Your task to perform on an android device: add a contact Image 0: 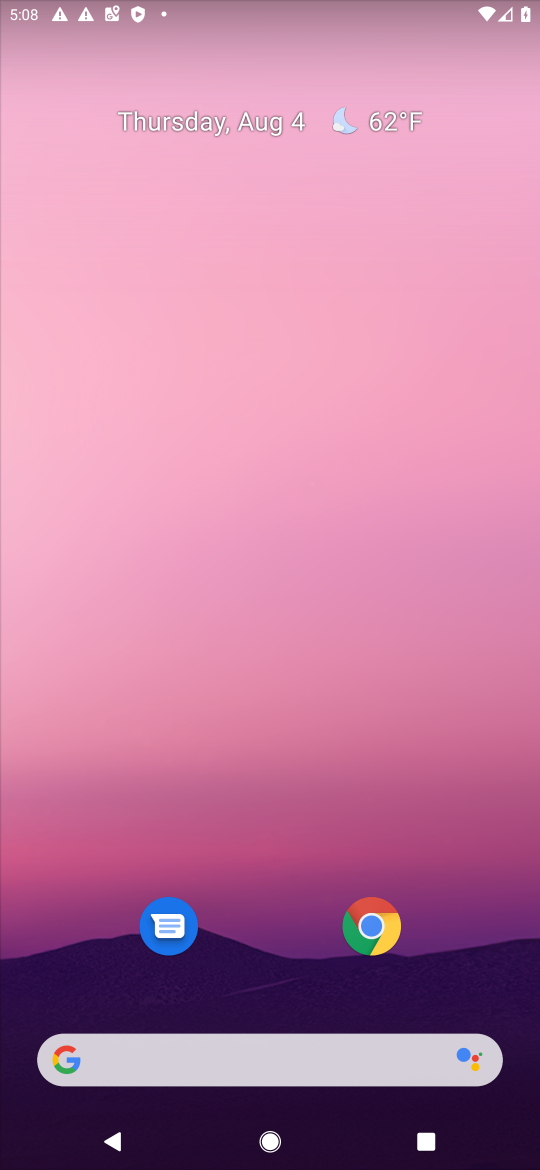
Step 0: drag from (322, 760) to (369, 255)
Your task to perform on an android device: add a contact Image 1: 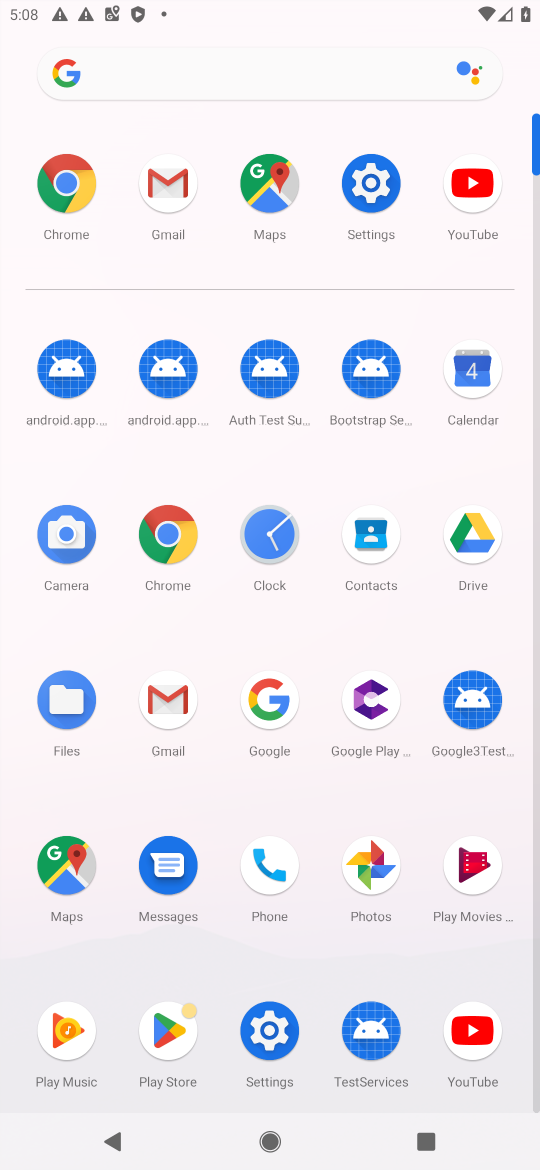
Step 1: click (369, 523)
Your task to perform on an android device: add a contact Image 2: 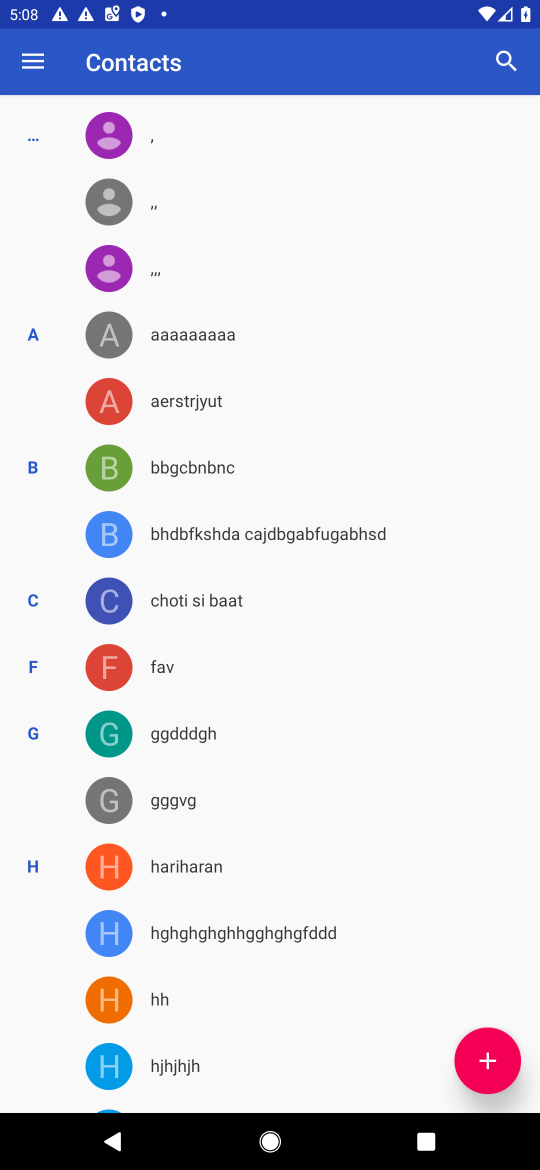
Step 2: click (495, 1054)
Your task to perform on an android device: add a contact Image 3: 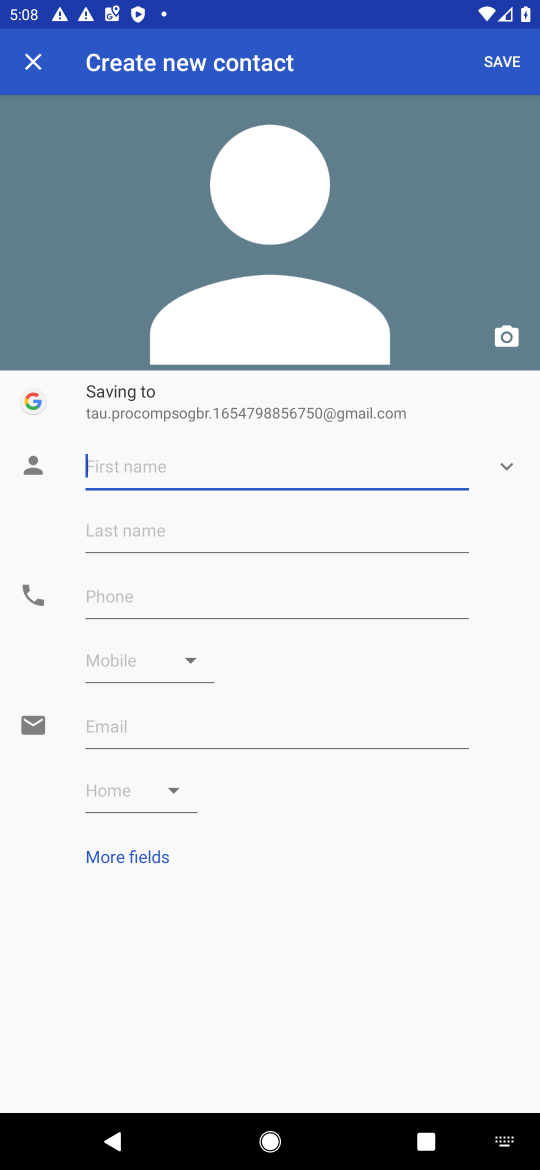
Step 3: type "jbbmbb"
Your task to perform on an android device: add a contact Image 4: 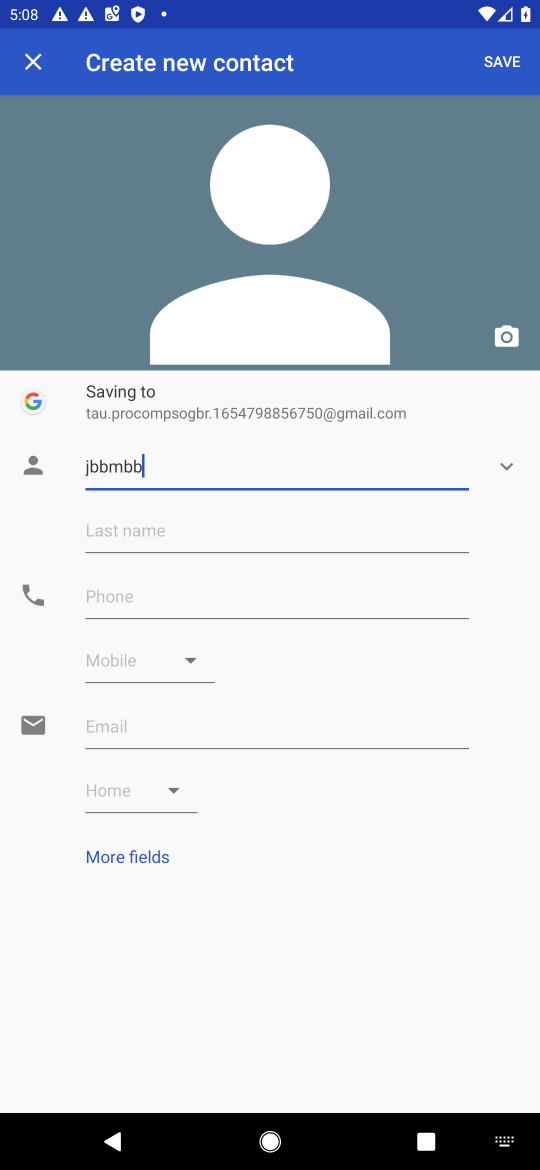
Step 4: click (133, 601)
Your task to perform on an android device: add a contact Image 5: 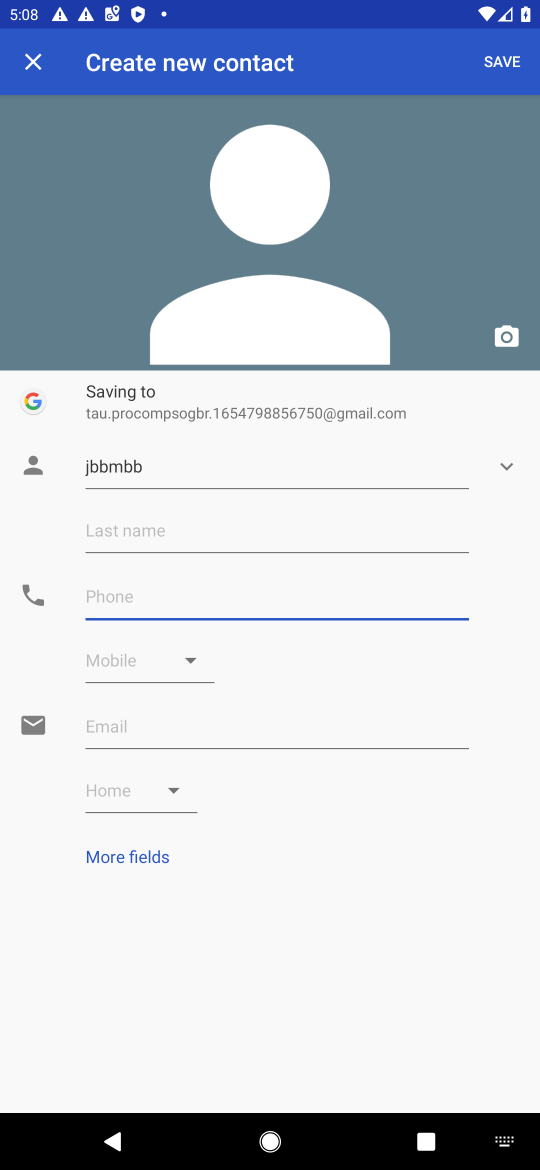
Step 5: type "989898989"
Your task to perform on an android device: add a contact Image 6: 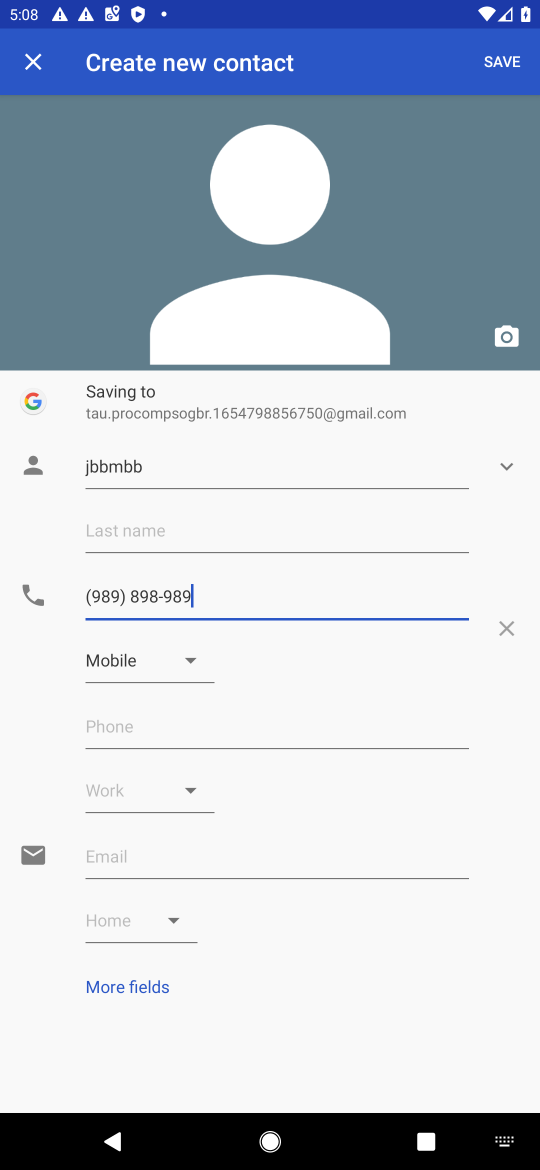
Step 6: click (499, 53)
Your task to perform on an android device: add a contact Image 7: 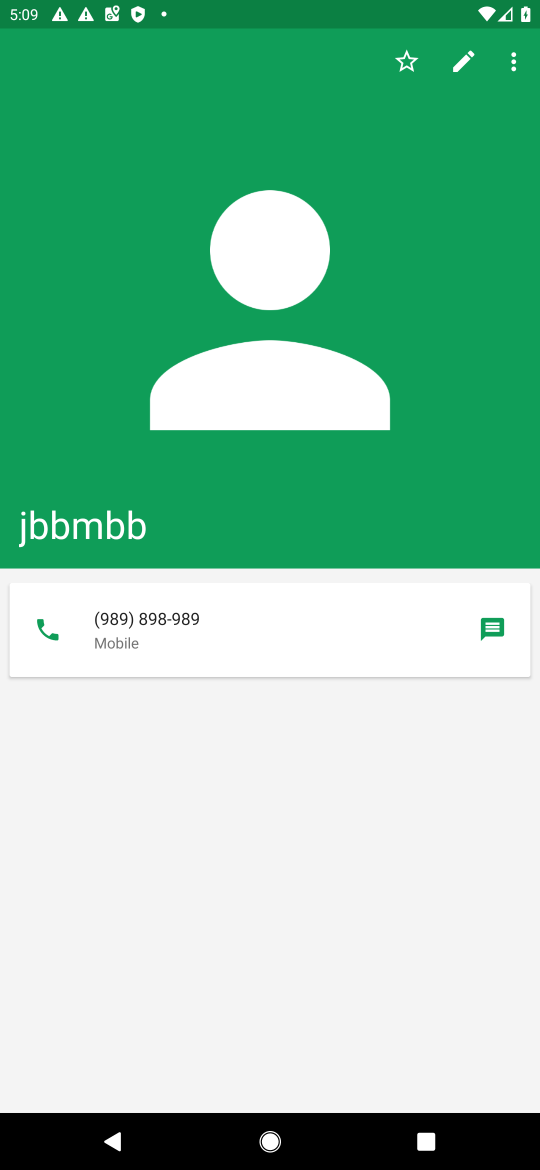
Step 7: task complete